Your task to perform on an android device: Is it going to rain tomorrow? Image 0: 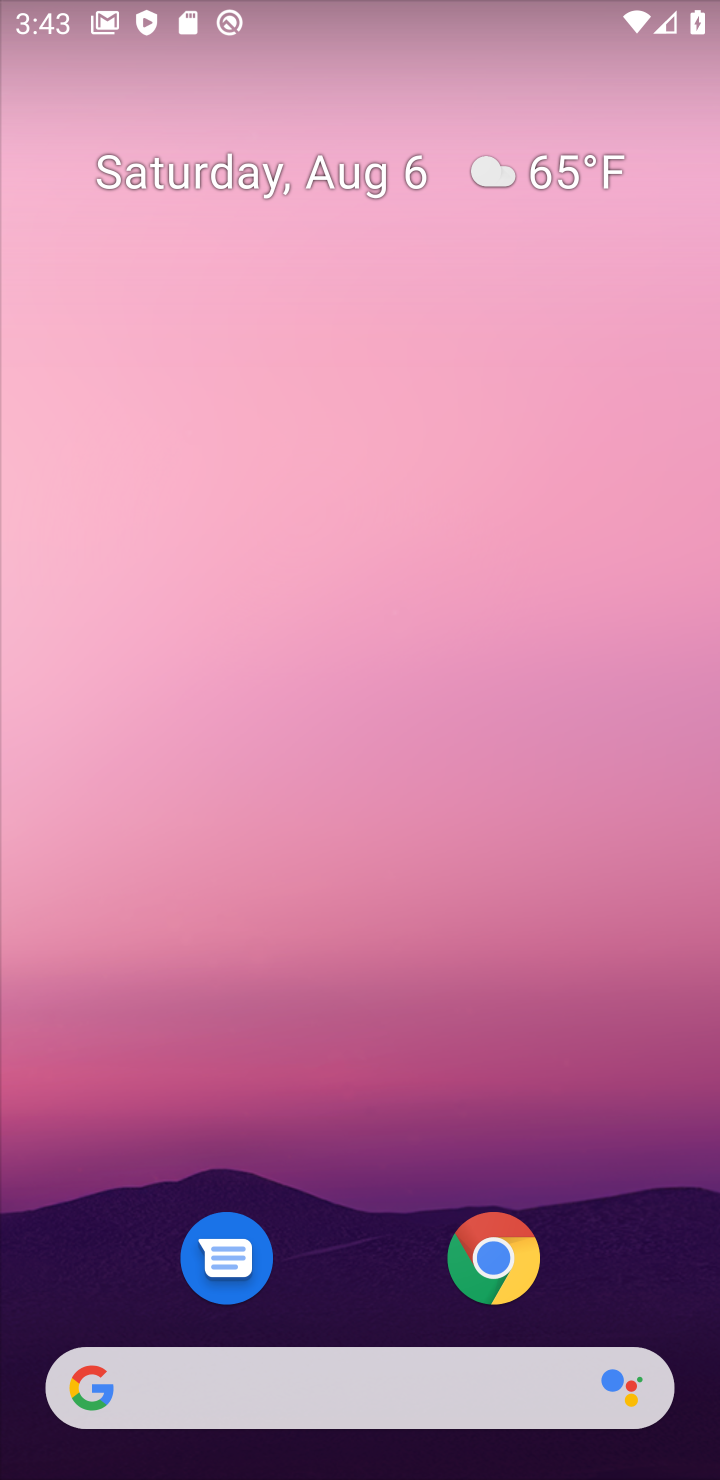
Step 0: drag from (352, 746) to (360, 300)
Your task to perform on an android device: Is it going to rain tomorrow? Image 1: 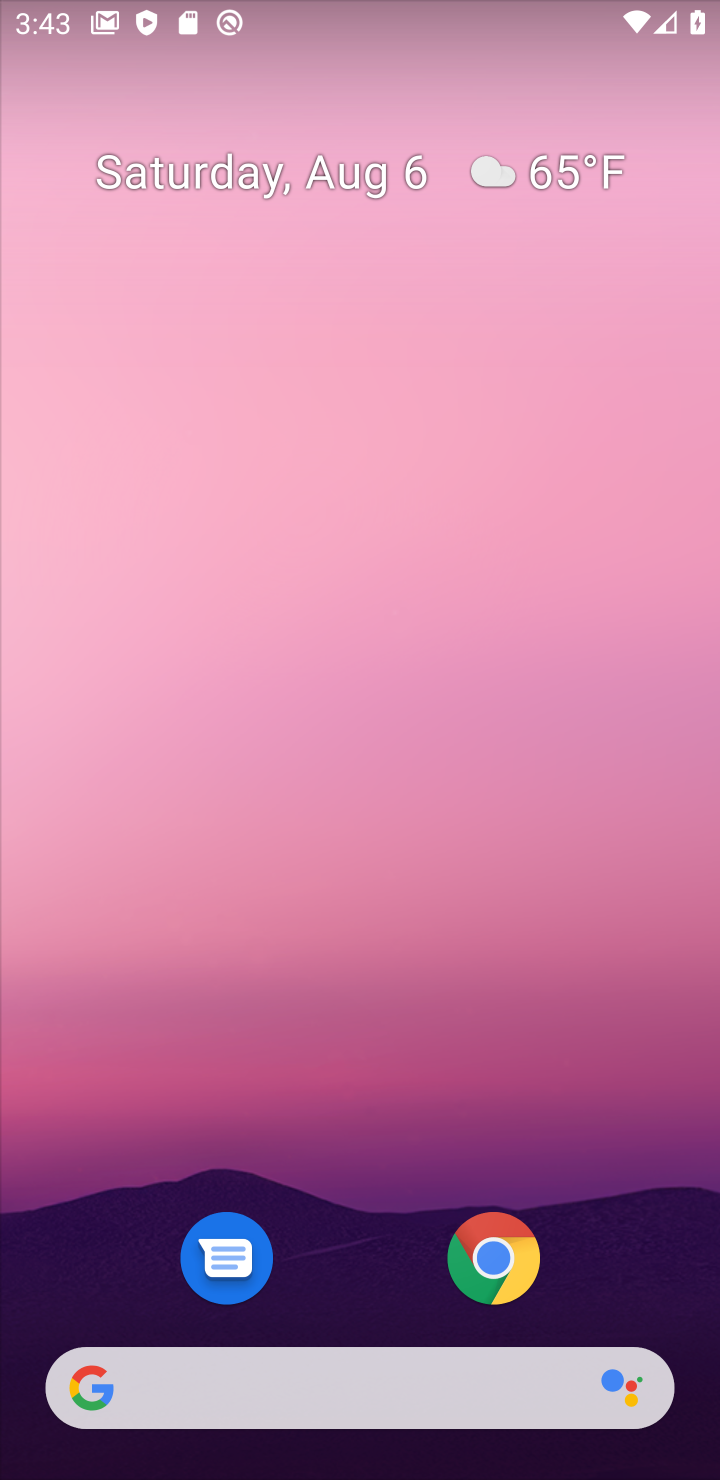
Step 1: click (337, 1395)
Your task to perform on an android device: Is it going to rain tomorrow? Image 2: 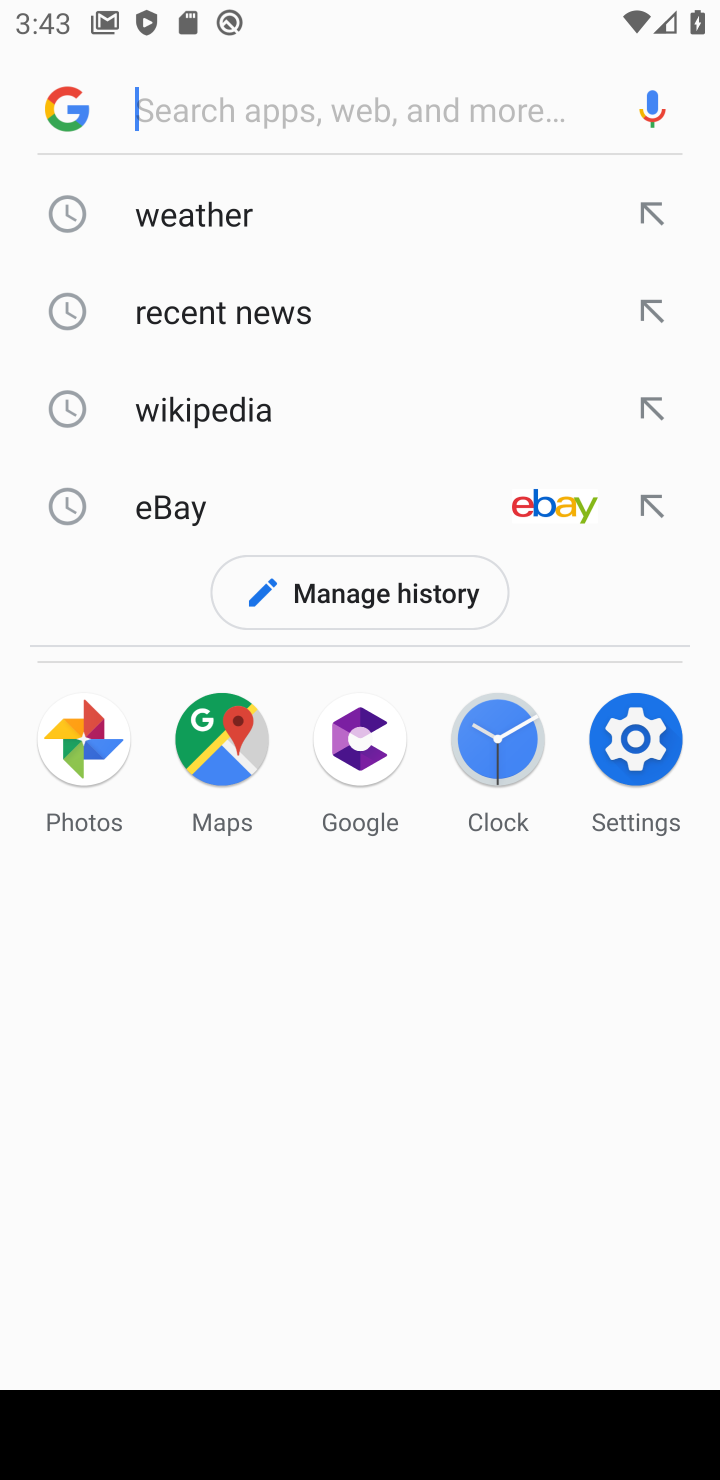
Step 2: click (206, 215)
Your task to perform on an android device: Is it going to rain tomorrow? Image 3: 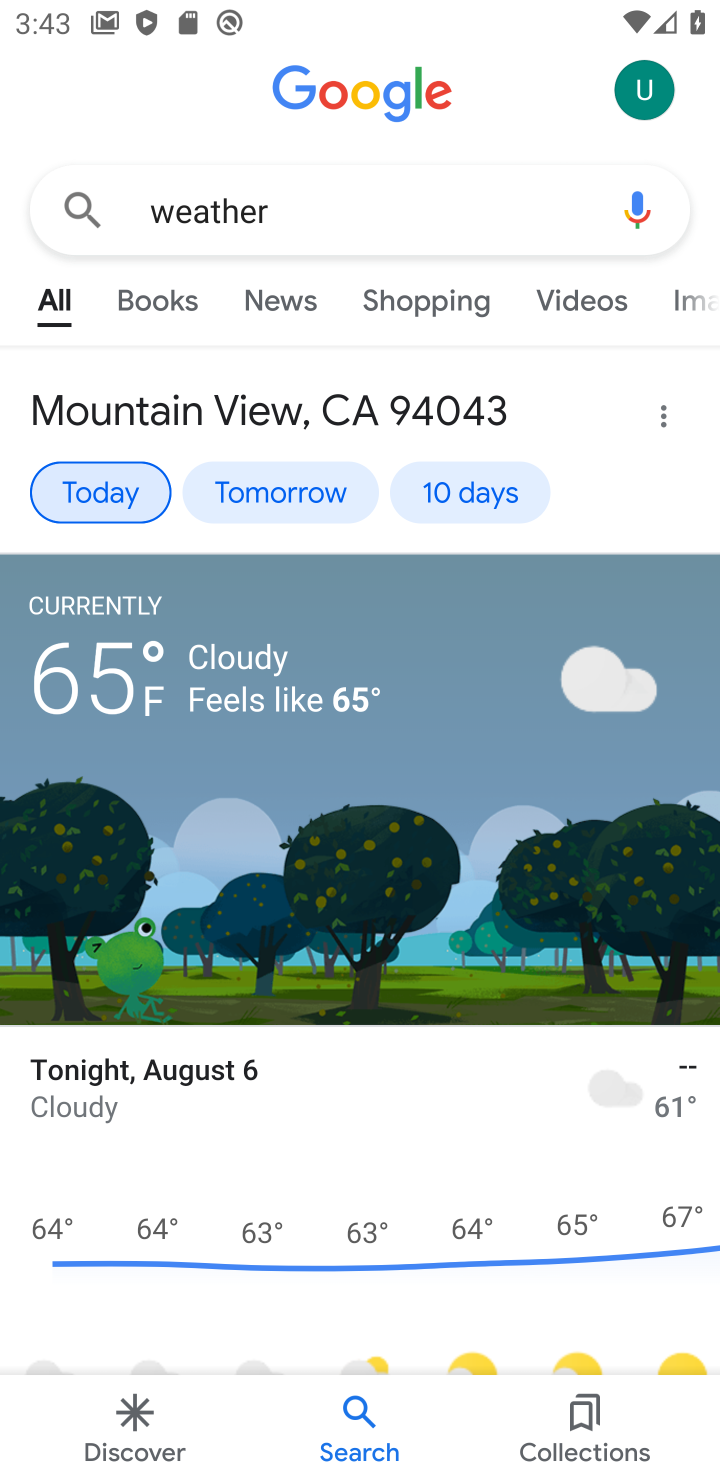
Step 3: click (276, 494)
Your task to perform on an android device: Is it going to rain tomorrow? Image 4: 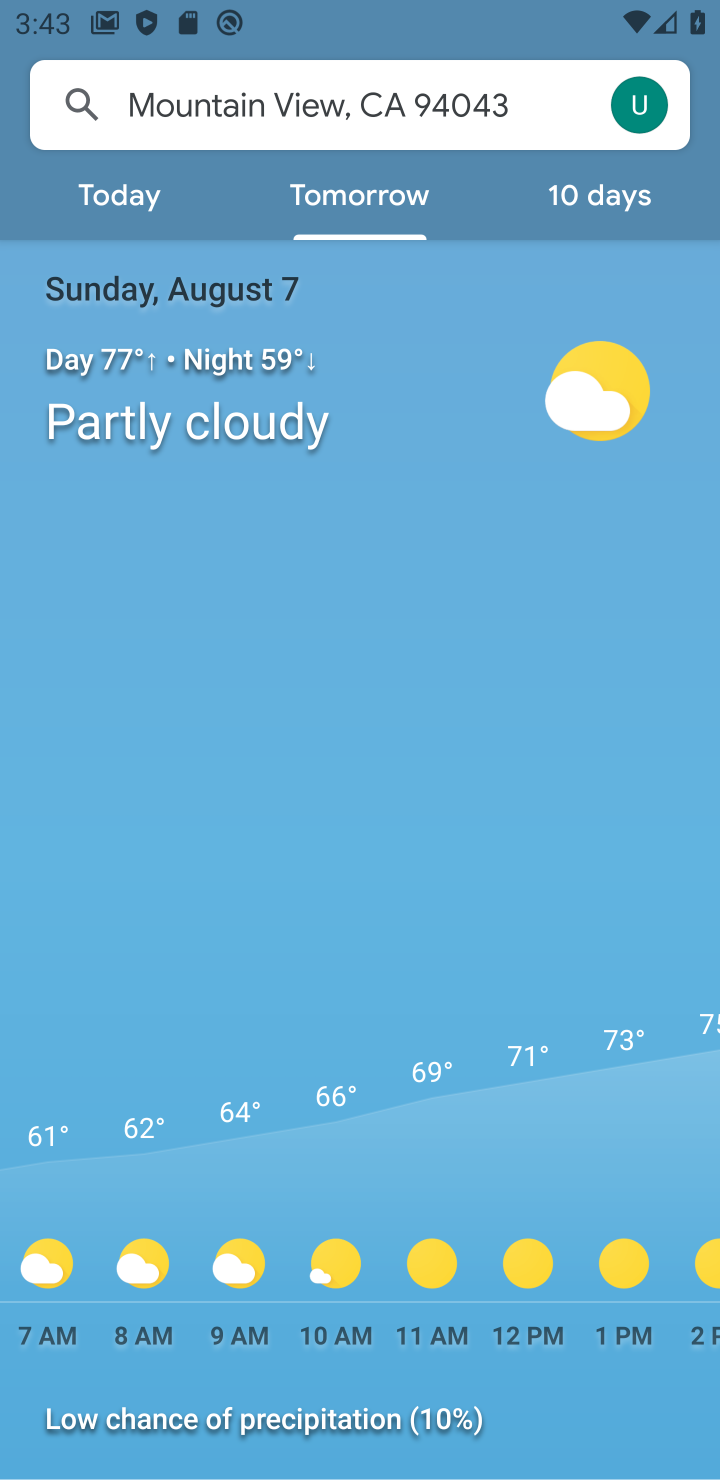
Step 4: task complete